Your task to perform on an android device: read, delete, or share a saved page in the chrome app Image 0: 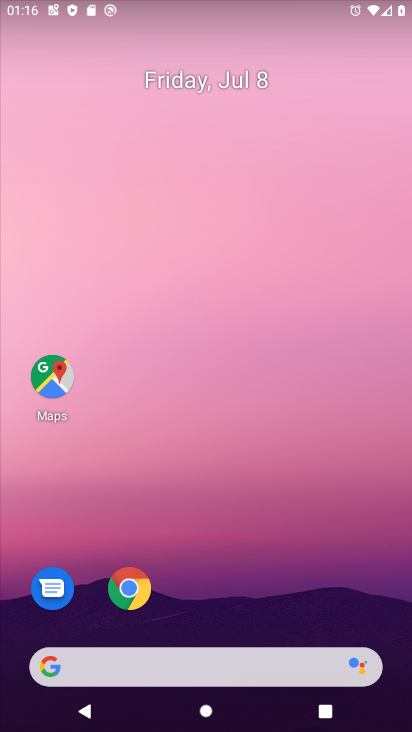
Step 0: click (272, 131)
Your task to perform on an android device: read, delete, or share a saved page in the chrome app Image 1: 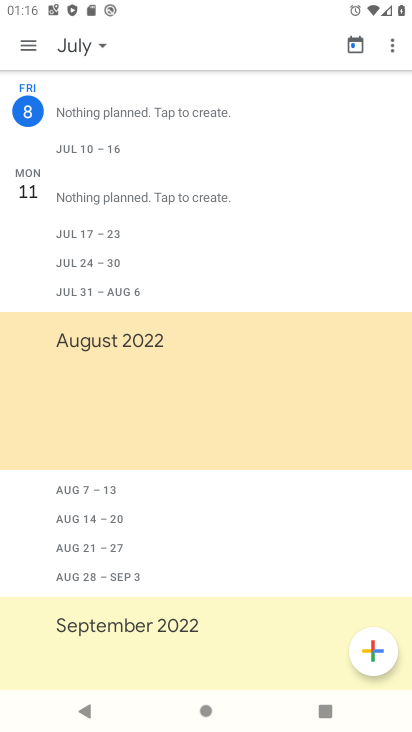
Step 1: drag from (153, 564) to (129, 236)
Your task to perform on an android device: read, delete, or share a saved page in the chrome app Image 2: 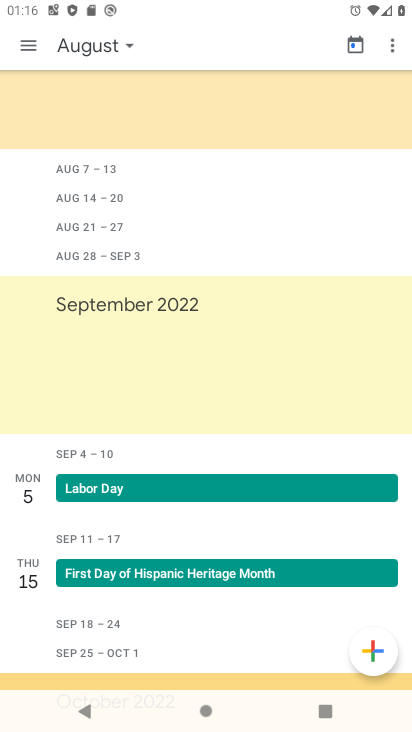
Step 2: press home button
Your task to perform on an android device: read, delete, or share a saved page in the chrome app Image 3: 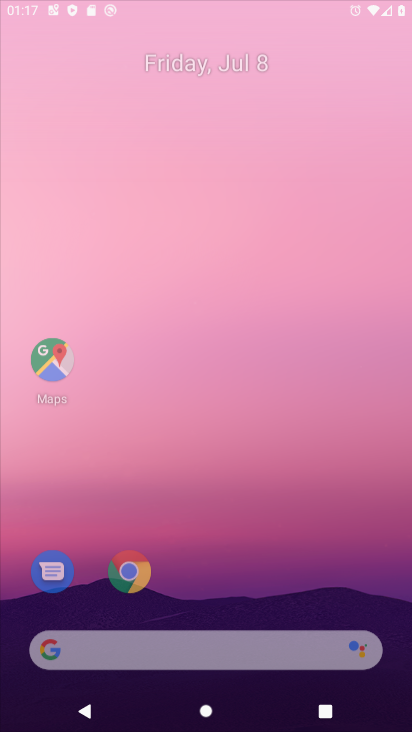
Step 3: drag from (225, 685) to (149, 250)
Your task to perform on an android device: read, delete, or share a saved page in the chrome app Image 4: 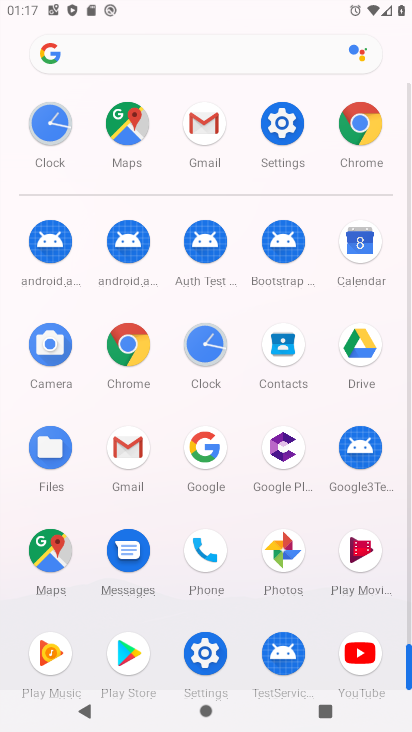
Step 4: click (132, 346)
Your task to perform on an android device: read, delete, or share a saved page in the chrome app Image 5: 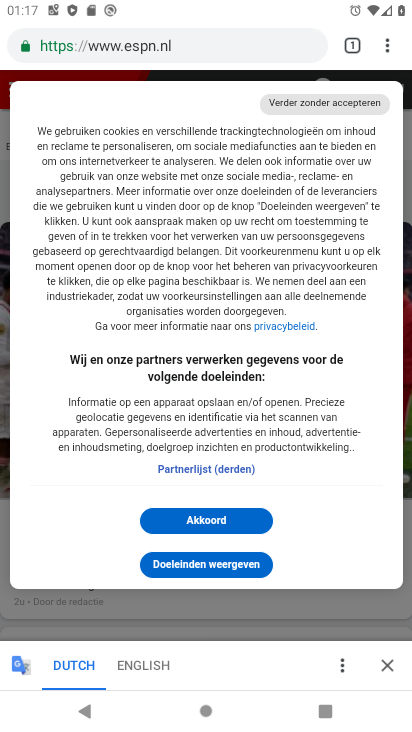
Step 5: click (383, 52)
Your task to perform on an android device: read, delete, or share a saved page in the chrome app Image 6: 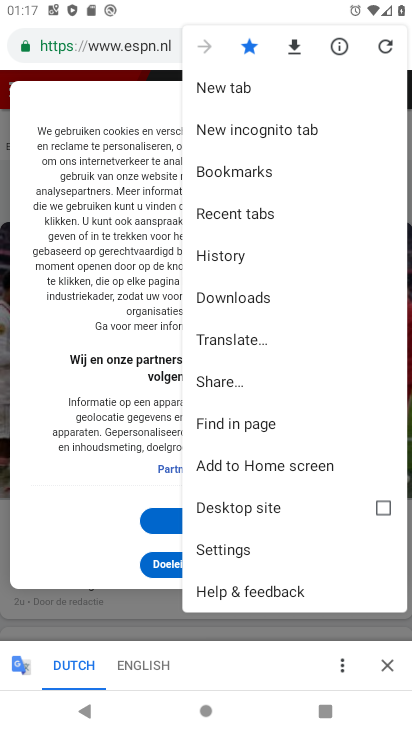
Step 6: click (270, 174)
Your task to perform on an android device: read, delete, or share a saved page in the chrome app Image 7: 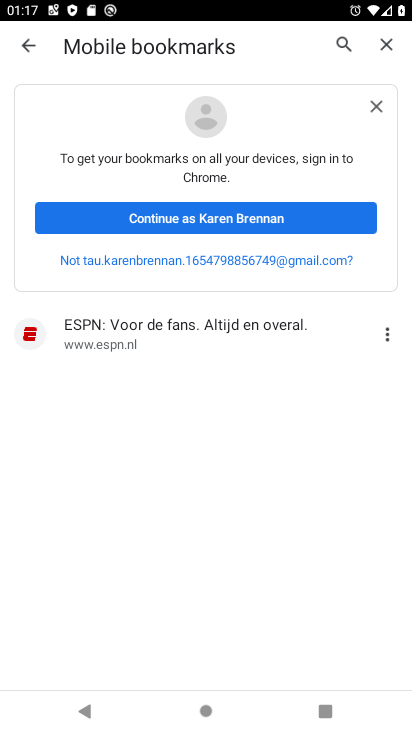
Step 7: task complete